Your task to perform on an android device: Go to Google Image 0: 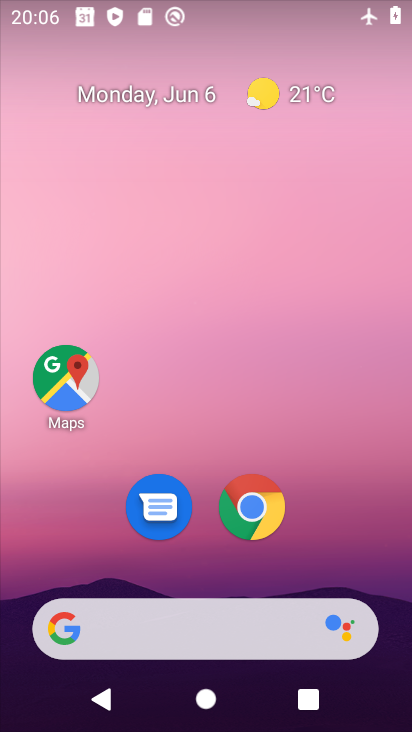
Step 0: click (207, 635)
Your task to perform on an android device: Go to Google Image 1: 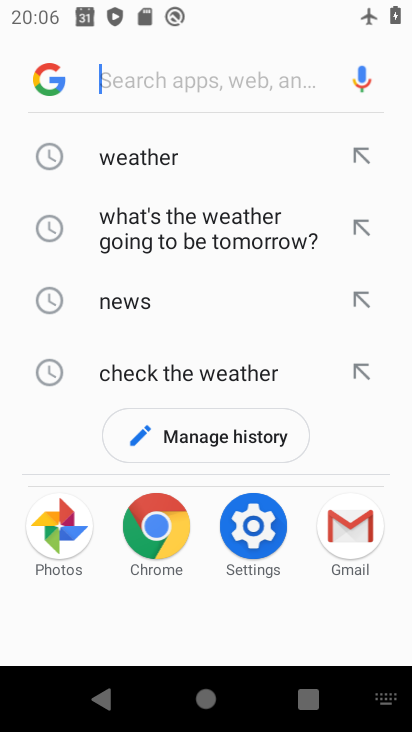
Step 1: task complete